Your task to perform on an android device: Search for seafood restaurants on Google Maps Image 0: 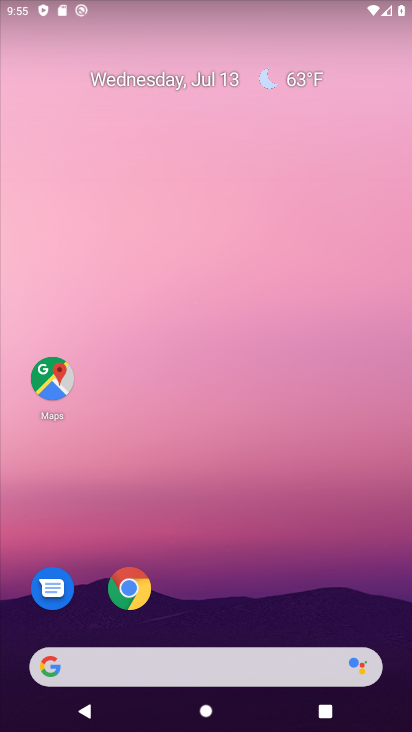
Step 0: click (73, 380)
Your task to perform on an android device: Search for seafood restaurants on Google Maps Image 1: 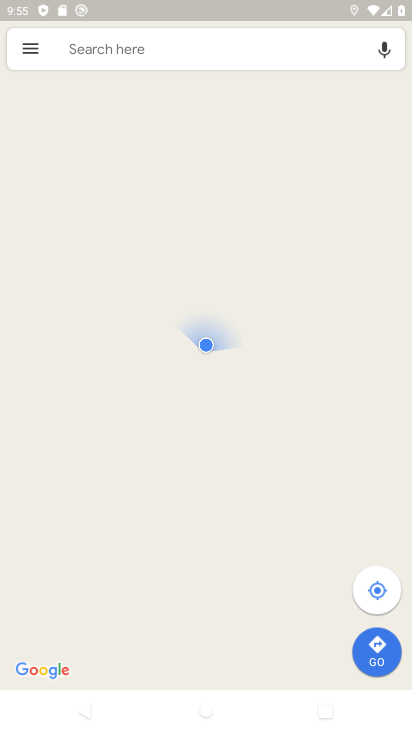
Step 1: click (214, 53)
Your task to perform on an android device: Search for seafood restaurants on Google Maps Image 2: 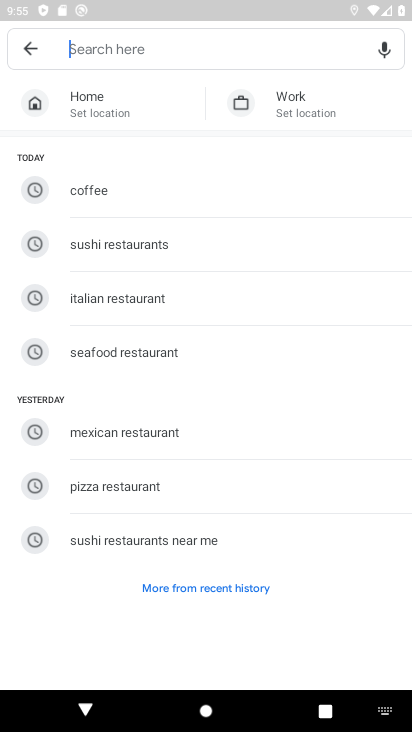
Step 2: click (117, 362)
Your task to perform on an android device: Search for seafood restaurants on Google Maps Image 3: 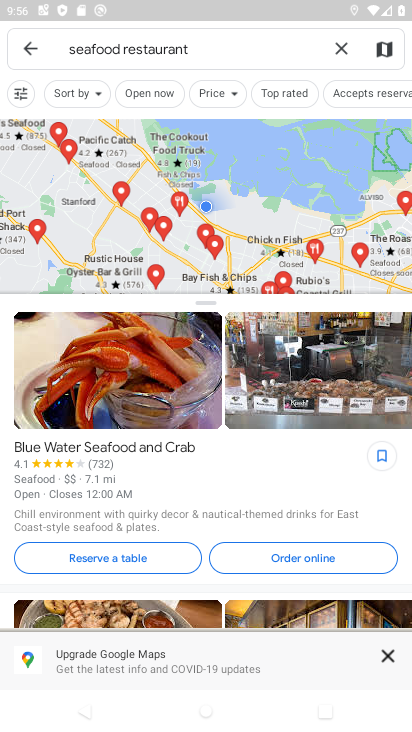
Step 3: task complete